Your task to perform on an android device: Open Google Chrome and click the shortcut for Amazon.com Image 0: 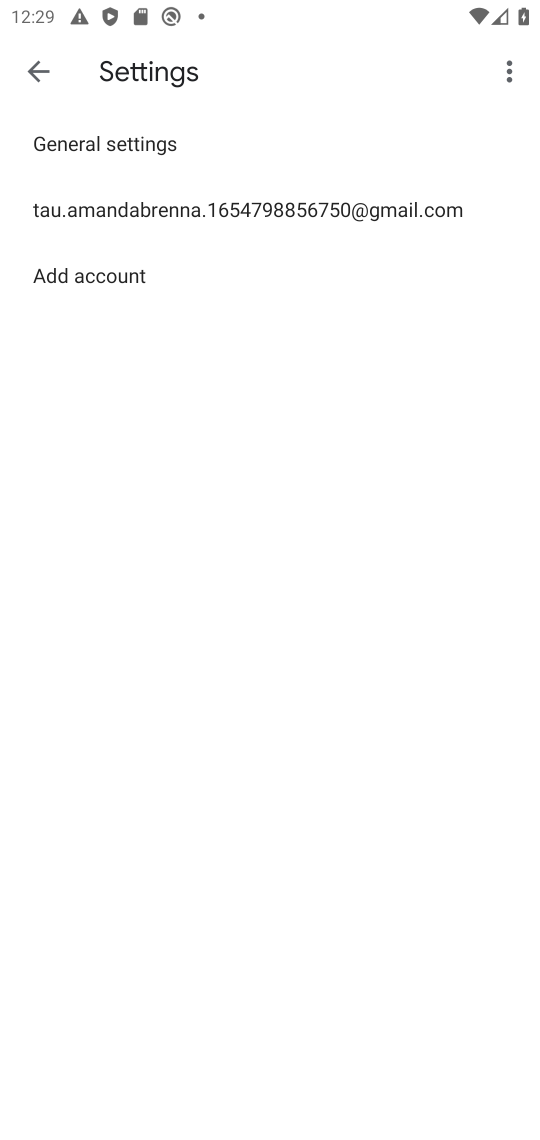
Step 0: press back button
Your task to perform on an android device: Open Google Chrome and click the shortcut for Amazon.com Image 1: 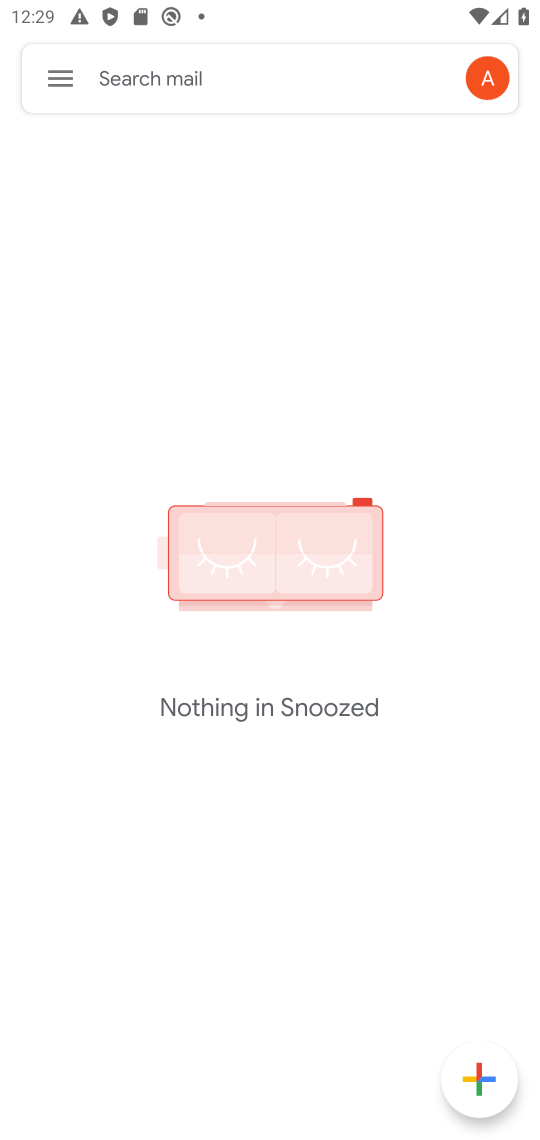
Step 1: press home button
Your task to perform on an android device: Open Google Chrome and click the shortcut for Amazon.com Image 2: 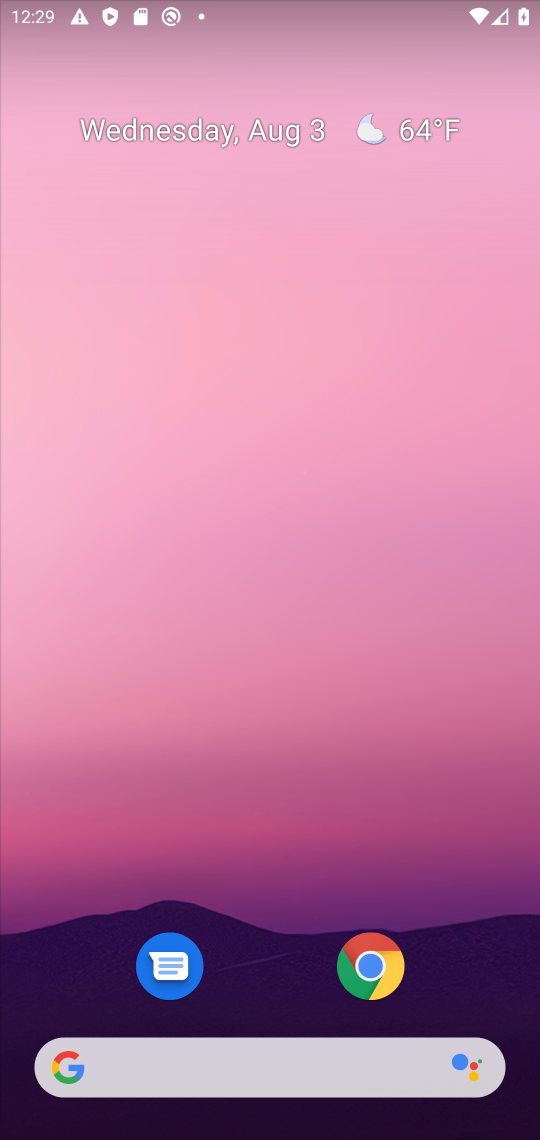
Step 2: click (379, 979)
Your task to perform on an android device: Open Google Chrome and click the shortcut for Amazon.com Image 3: 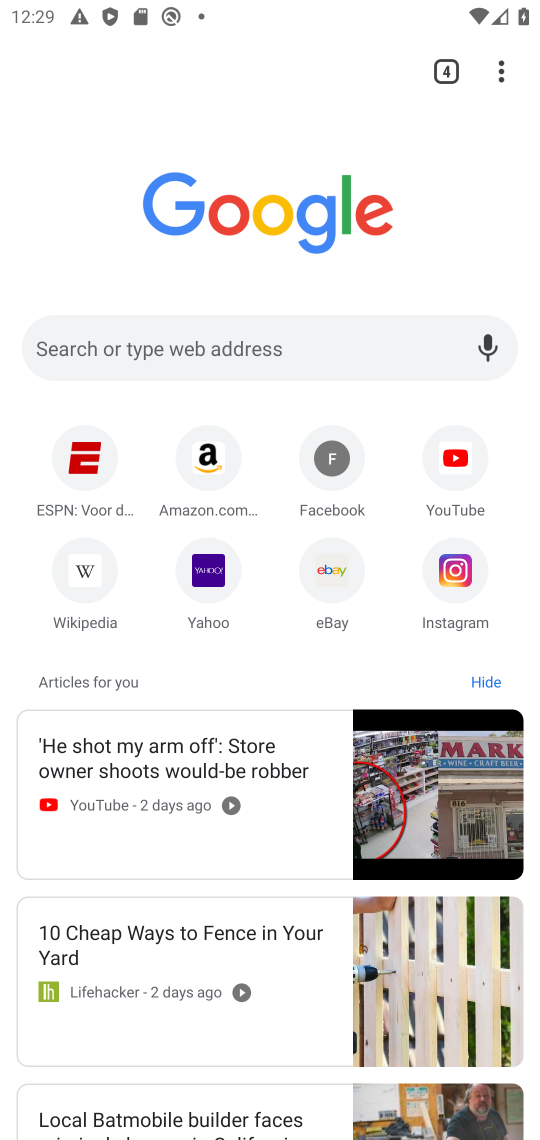
Step 3: click (191, 482)
Your task to perform on an android device: Open Google Chrome and click the shortcut for Amazon.com Image 4: 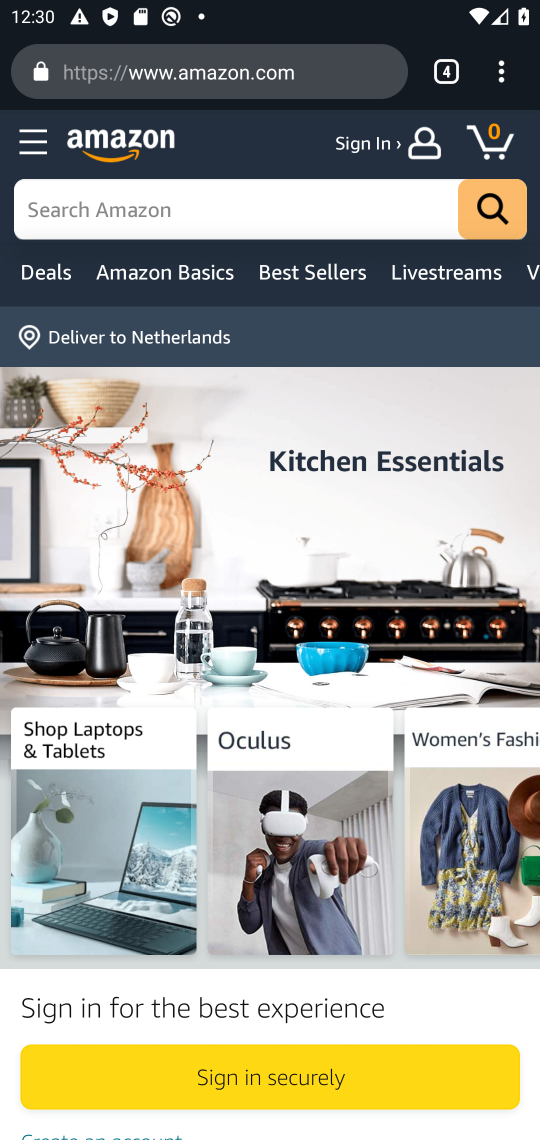
Step 4: task complete